Your task to perform on an android device: open app "Yahoo Mail" Image 0: 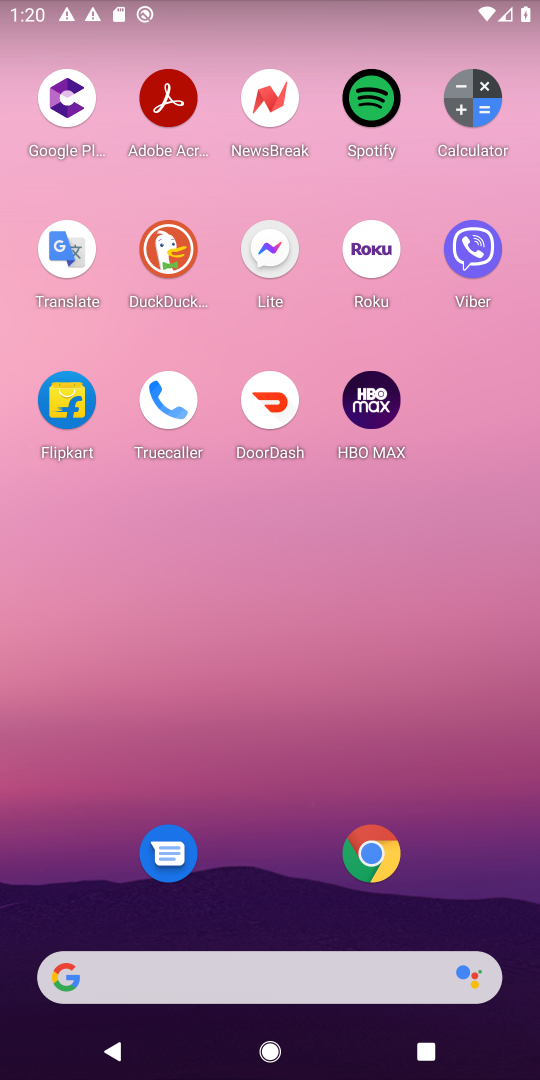
Step 0: drag from (280, 955) to (346, 378)
Your task to perform on an android device: open app "Yahoo Mail" Image 1: 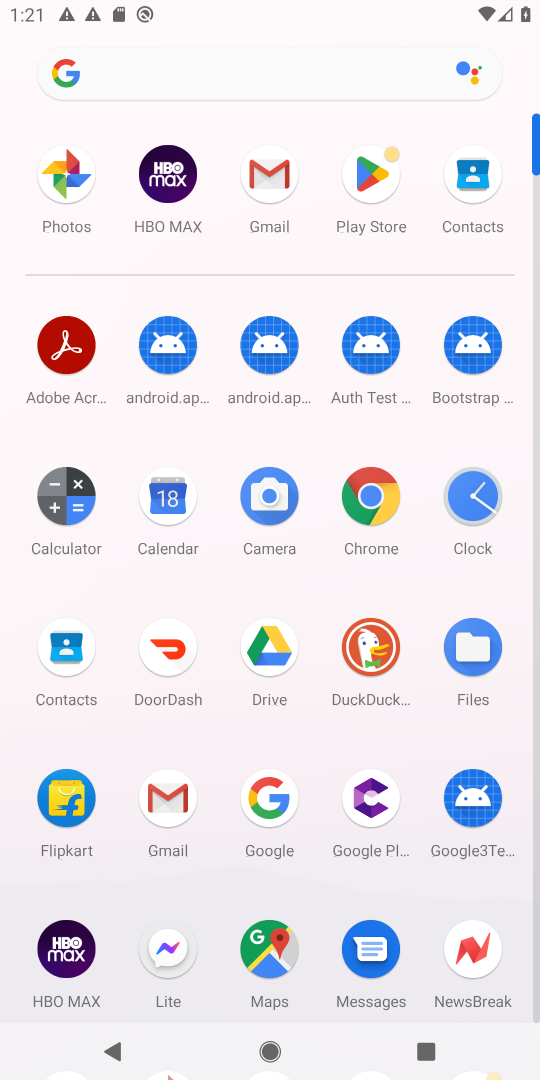
Step 1: click (387, 216)
Your task to perform on an android device: open app "Yahoo Mail" Image 2: 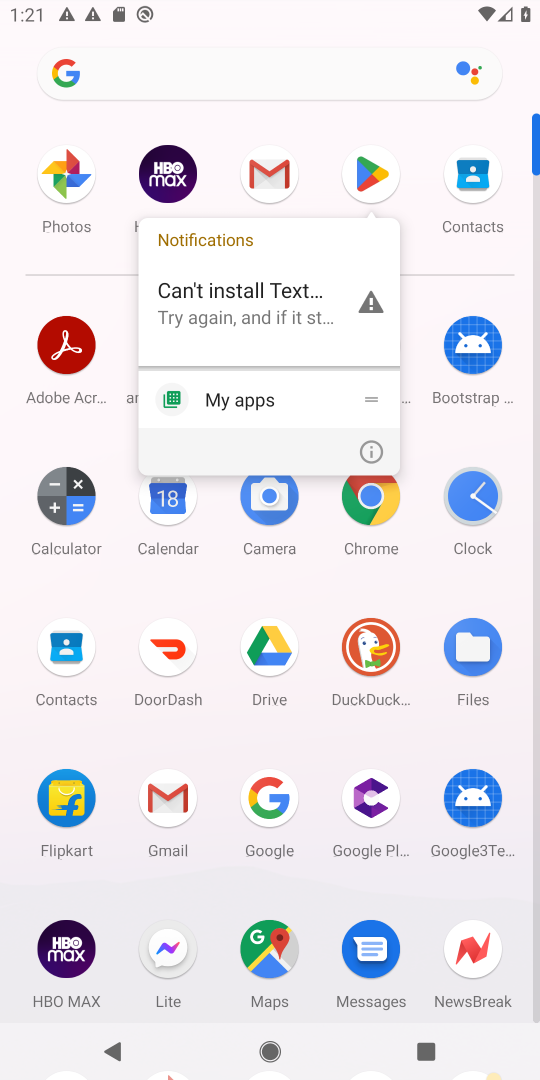
Step 2: click (381, 177)
Your task to perform on an android device: open app "Yahoo Mail" Image 3: 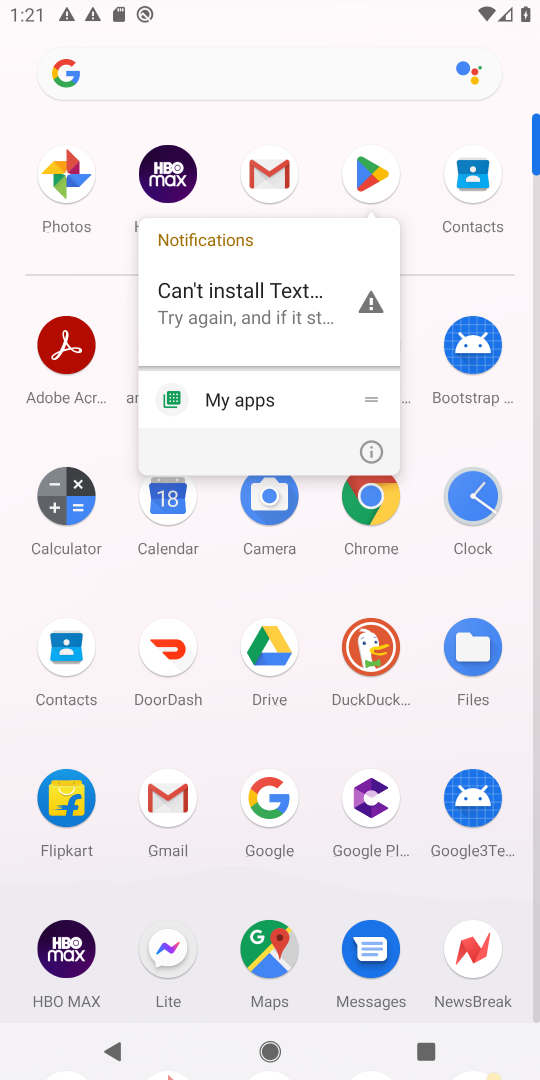
Step 3: click (381, 177)
Your task to perform on an android device: open app "Yahoo Mail" Image 4: 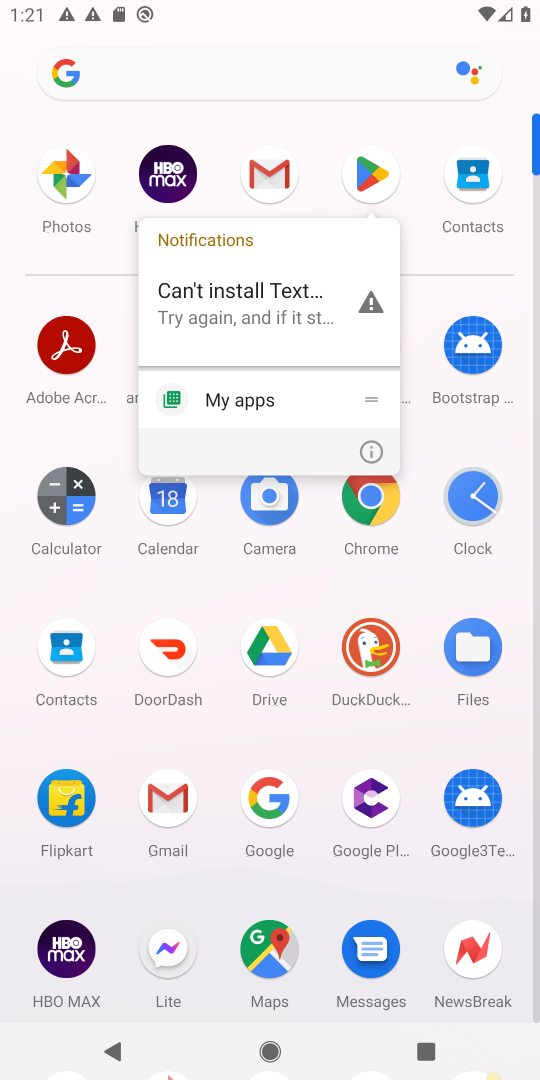
Step 4: click (381, 177)
Your task to perform on an android device: open app "Yahoo Mail" Image 5: 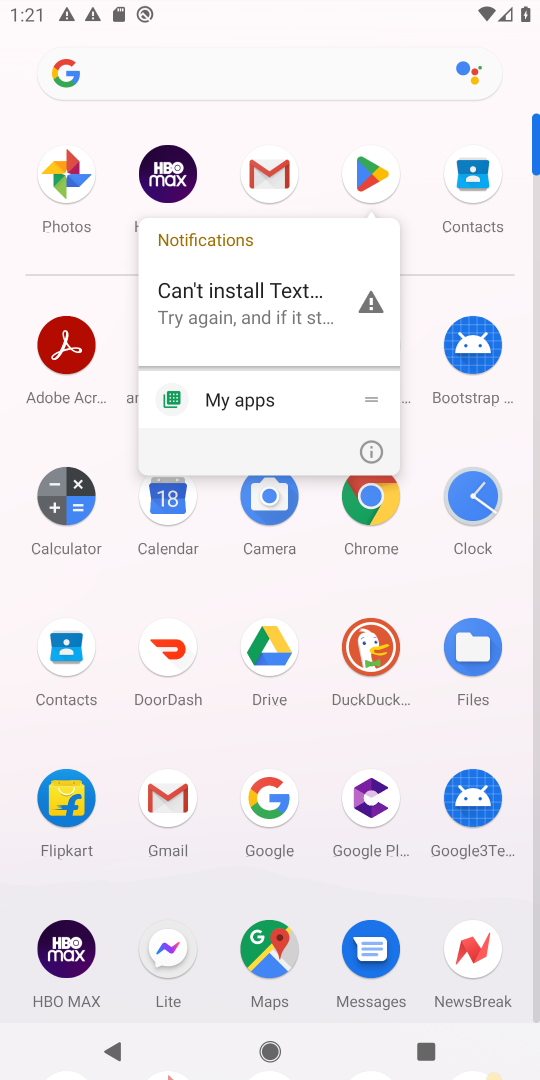
Step 5: click (367, 173)
Your task to perform on an android device: open app "Yahoo Mail" Image 6: 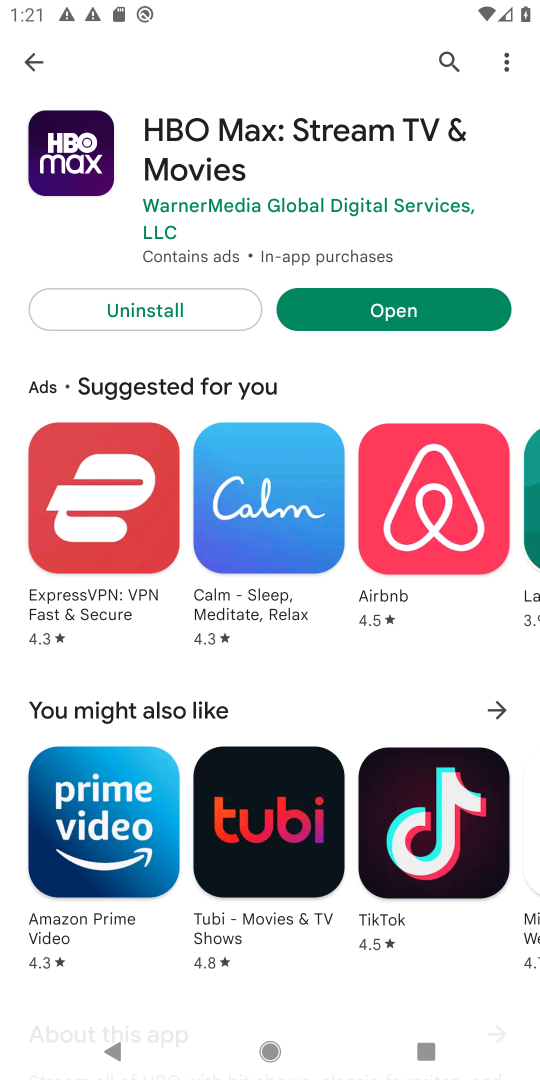
Step 6: click (43, 67)
Your task to perform on an android device: open app "Yahoo Mail" Image 7: 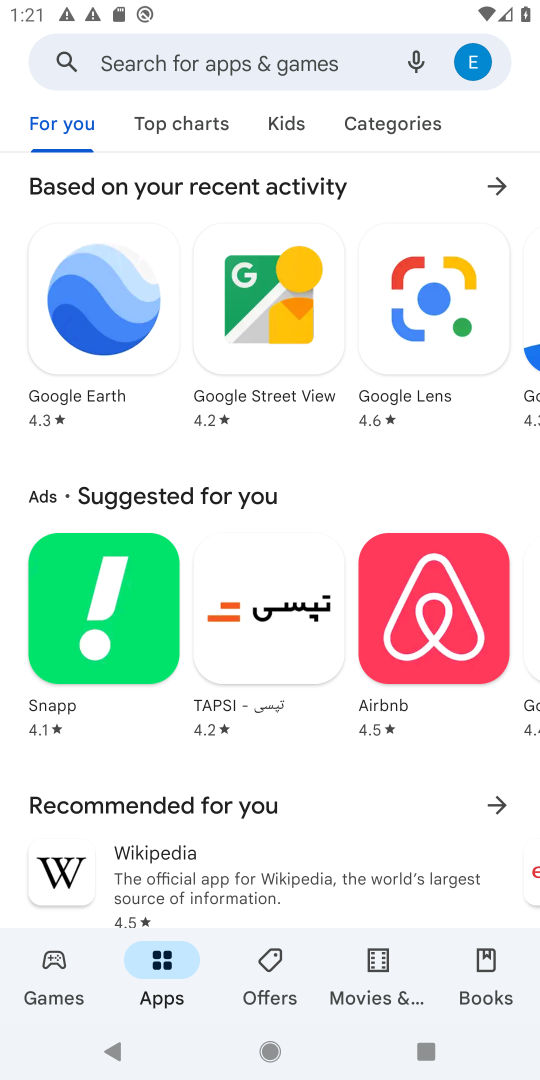
Step 7: click (166, 73)
Your task to perform on an android device: open app "Yahoo Mail" Image 8: 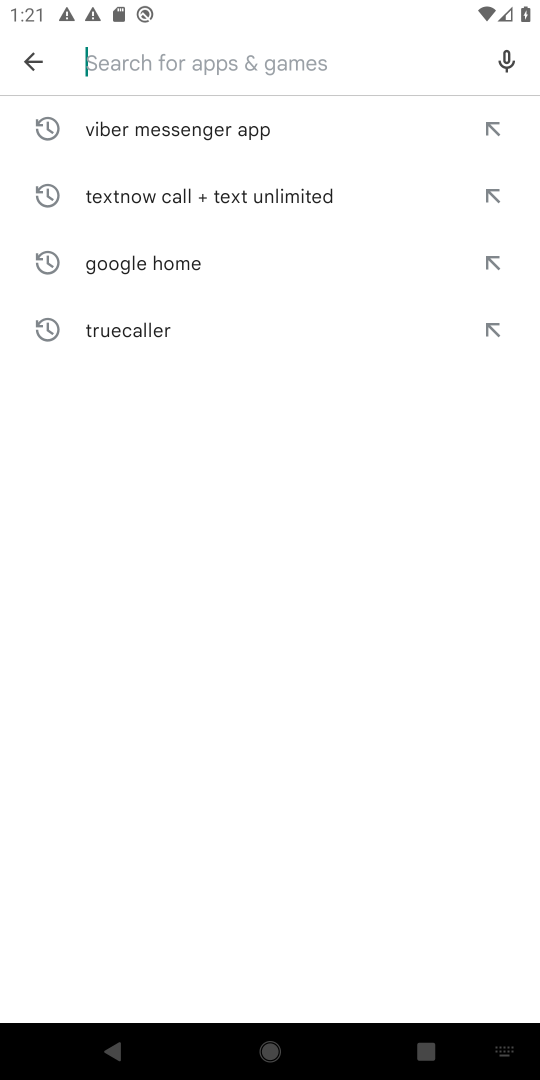
Step 8: type "Yahoo Mail"
Your task to perform on an android device: open app "Yahoo Mail" Image 9: 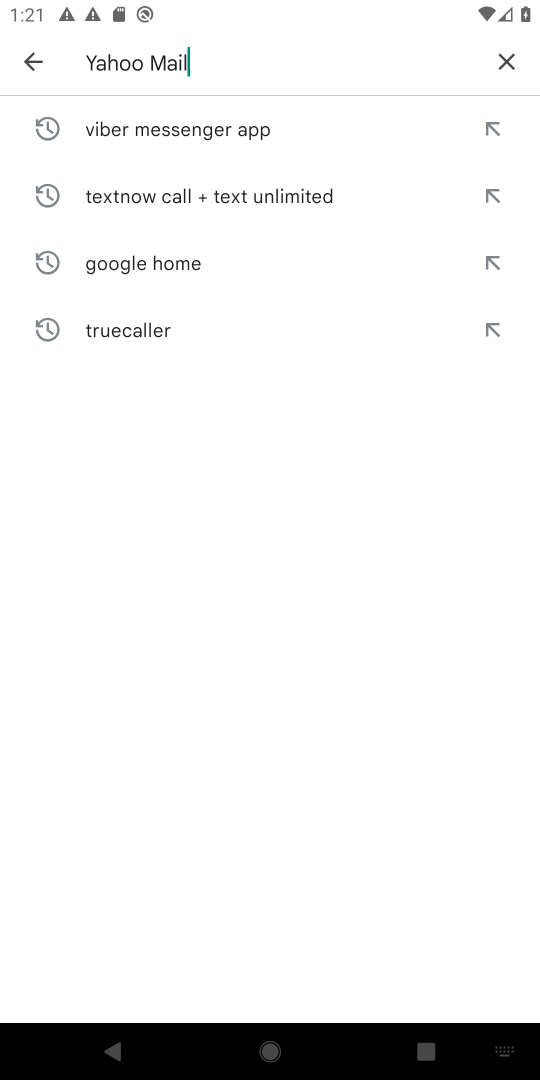
Step 9: type ""
Your task to perform on an android device: open app "Yahoo Mail" Image 10: 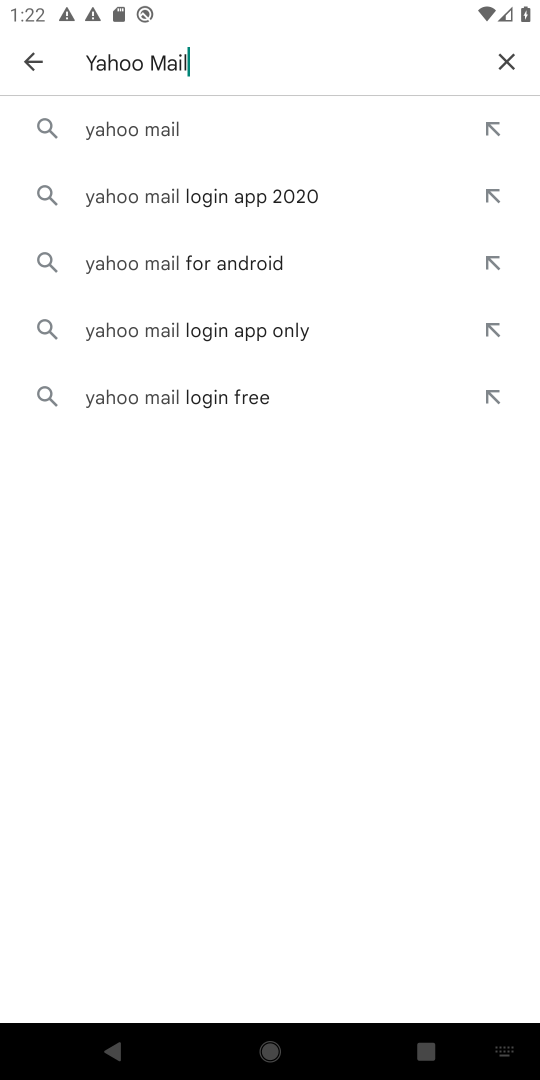
Step 10: click (145, 143)
Your task to perform on an android device: open app "Yahoo Mail" Image 11: 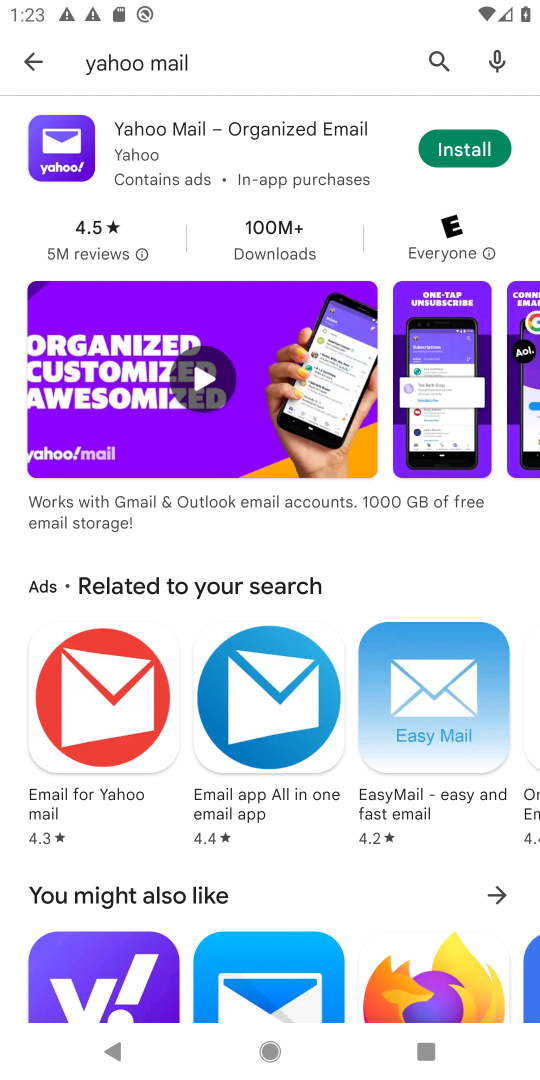
Step 11: task complete